Your task to perform on an android device: Show me popular games on the Play Store Image 0: 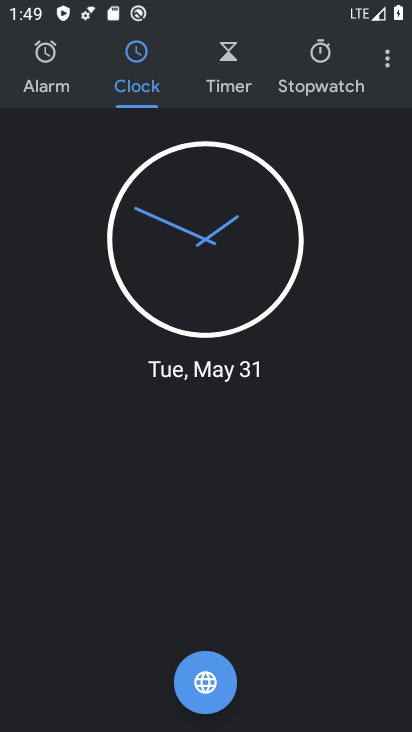
Step 0: press home button
Your task to perform on an android device: Show me popular games on the Play Store Image 1: 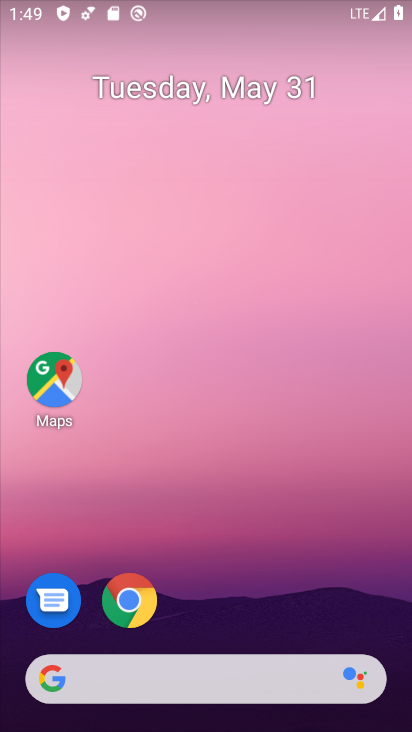
Step 1: drag from (201, 634) to (256, 14)
Your task to perform on an android device: Show me popular games on the Play Store Image 2: 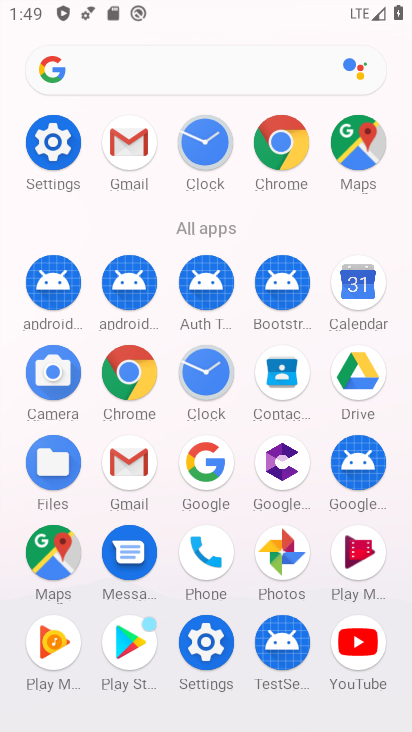
Step 2: click (122, 633)
Your task to perform on an android device: Show me popular games on the Play Store Image 3: 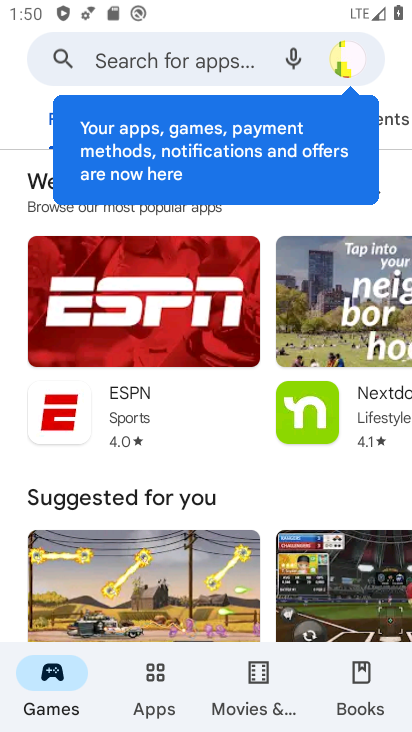
Step 3: drag from (222, 512) to (259, 129)
Your task to perform on an android device: Show me popular games on the Play Store Image 4: 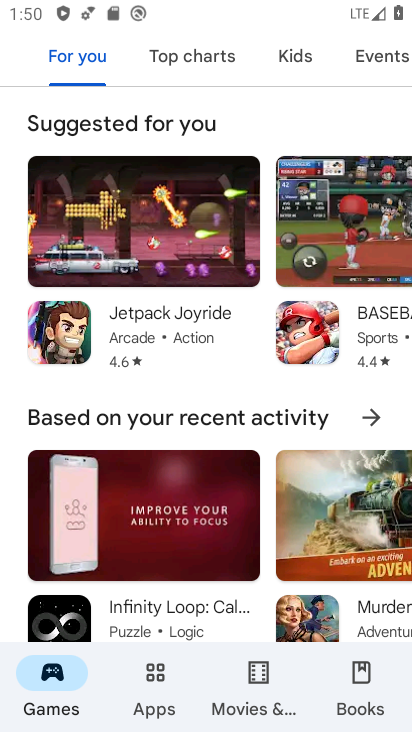
Step 4: drag from (247, 578) to (292, 176)
Your task to perform on an android device: Show me popular games on the Play Store Image 5: 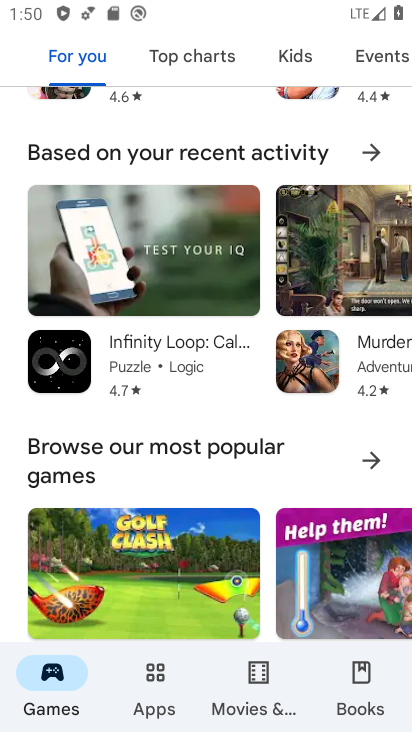
Step 5: click (365, 456)
Your task to perform on an android device: Show me popular games on the Play Store Image 6: 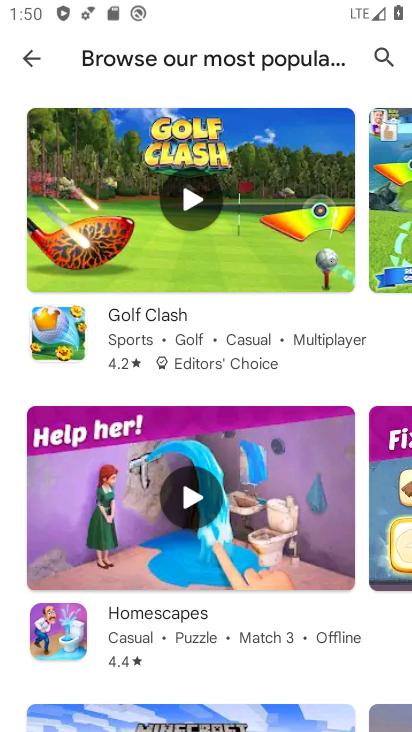
Step 6: task complete